Your task to perform on an android device: Do I have any events this weekend? Image 0: 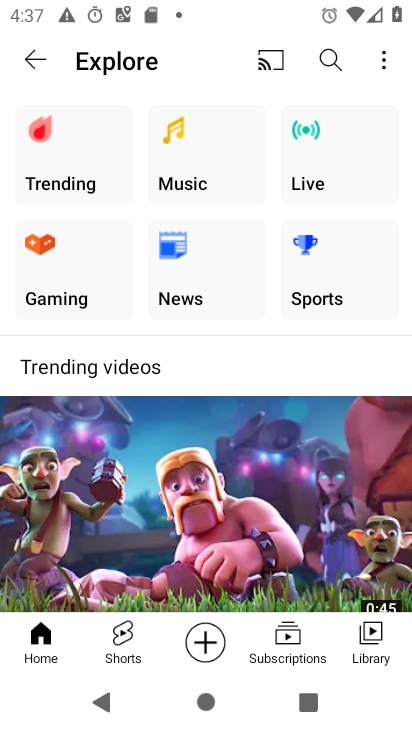
Step 0: press home button
Your task to perform on an android device: Do I have any events this weekend? Image 1: 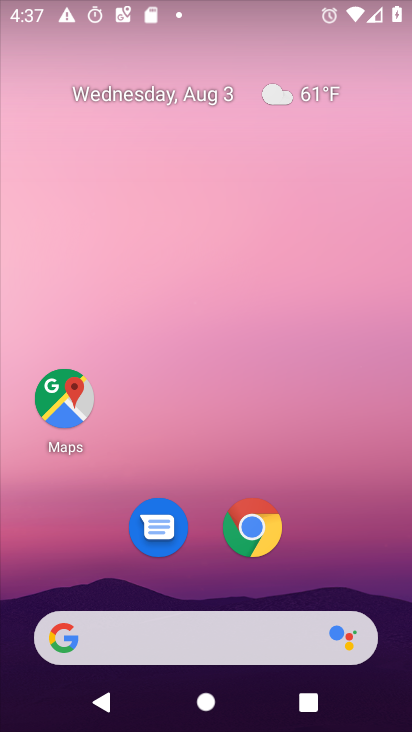
Step 1: drag from (335, 552) to (339, 18)
Your task to perform on an android device: Do I have any events this weekend? Image 2: 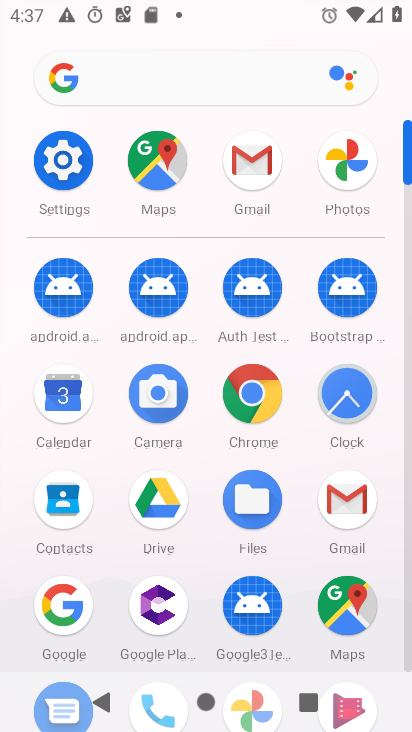
Step 2: drag from (299, 488) to (355, 135)
Your task to perform on an android device: Do I have any events this weekend? Image 3: 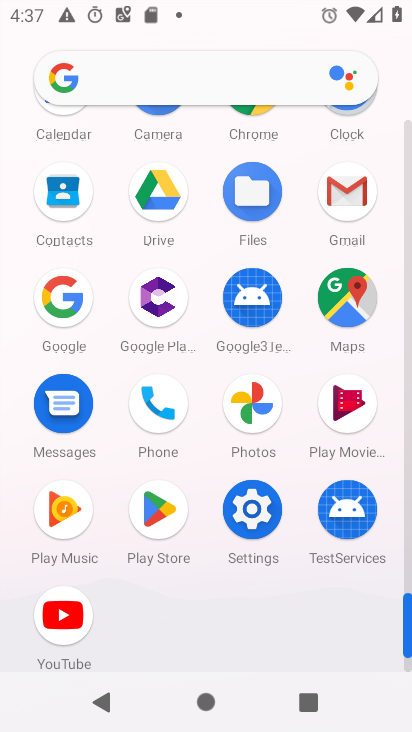
Step 3: drag from (204, 229) to (176, 511)
Your task to perform on an android device: Do I have any events this weekend? Image 4: 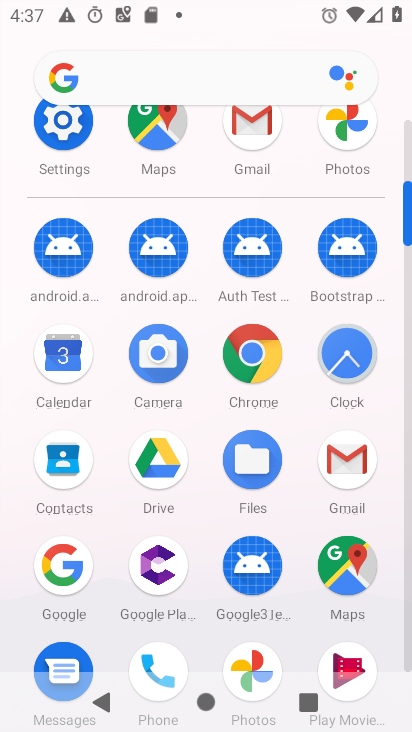
Step 4: click (62, 356)
Your task to perform on an android device: Do I have any events this weekend? Image 5: 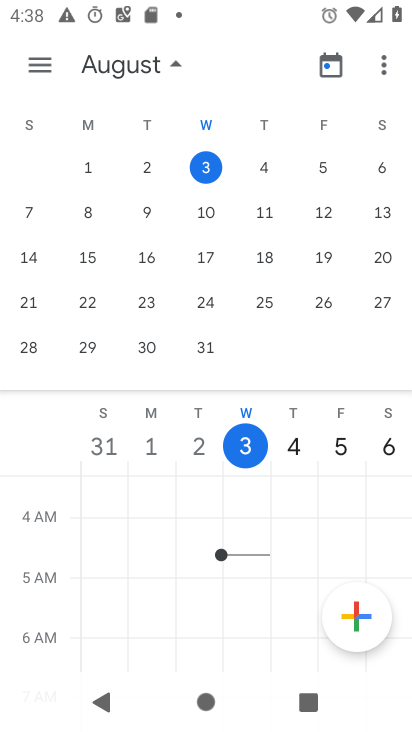
Step 5: drag from (41, 252) to (359, 213)
Your task to perform on an android device: Do I have any events this weekend? Image 6: 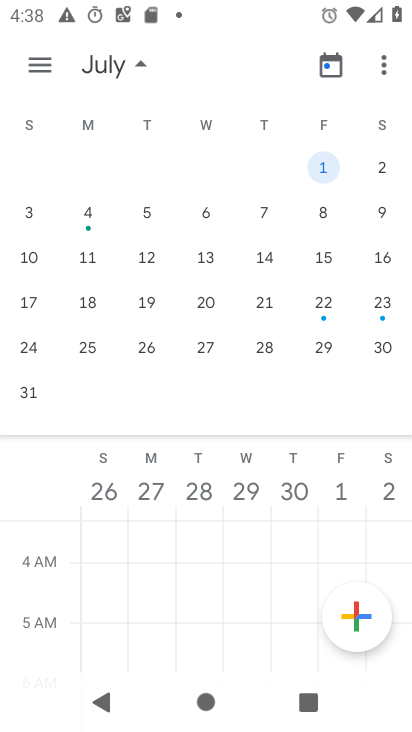
Step 6: drag from (346, 225) to (19, 226)
Your task to perform on an android device: Do I have any events this weekend? Image 7: 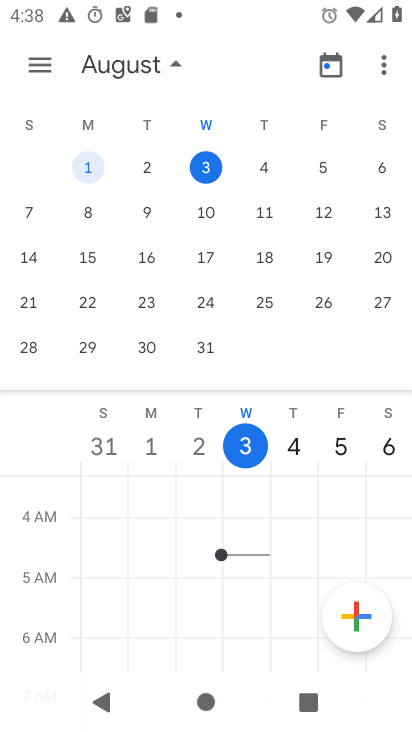
Step 7: click (382, 169)
Your task to perform on an android device: Do I have any events this weekend? Image 8: 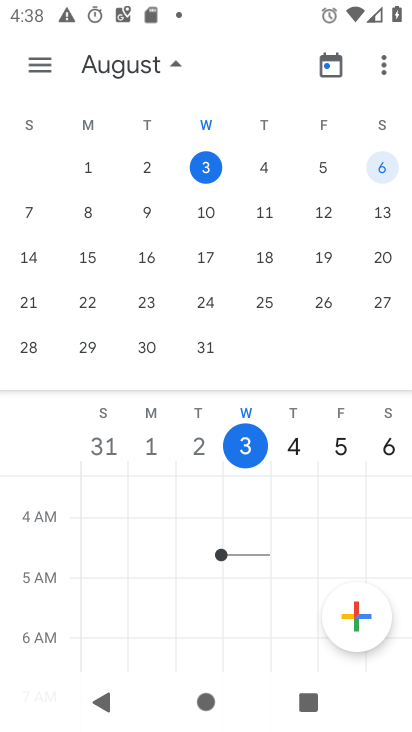
Step 8: click (45, 76)
Your task to perform on an android device: Do I have any events this weekend? Image 9: 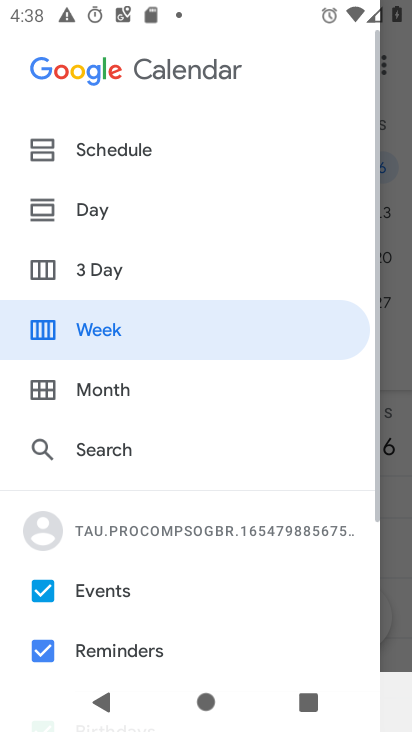
Step 9: click (84, 276)
Your task to perform on an android device: Do I have any events this weekend? Image 10: 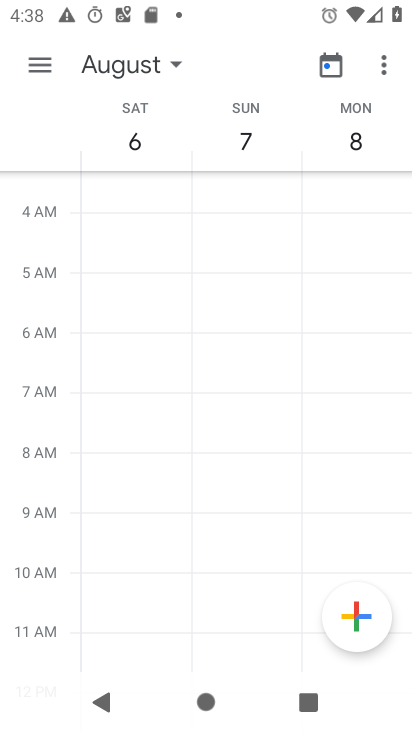
Step 10: task complete